Your task to perform on an android device: stop showing notifications on the lock screen Image 0: 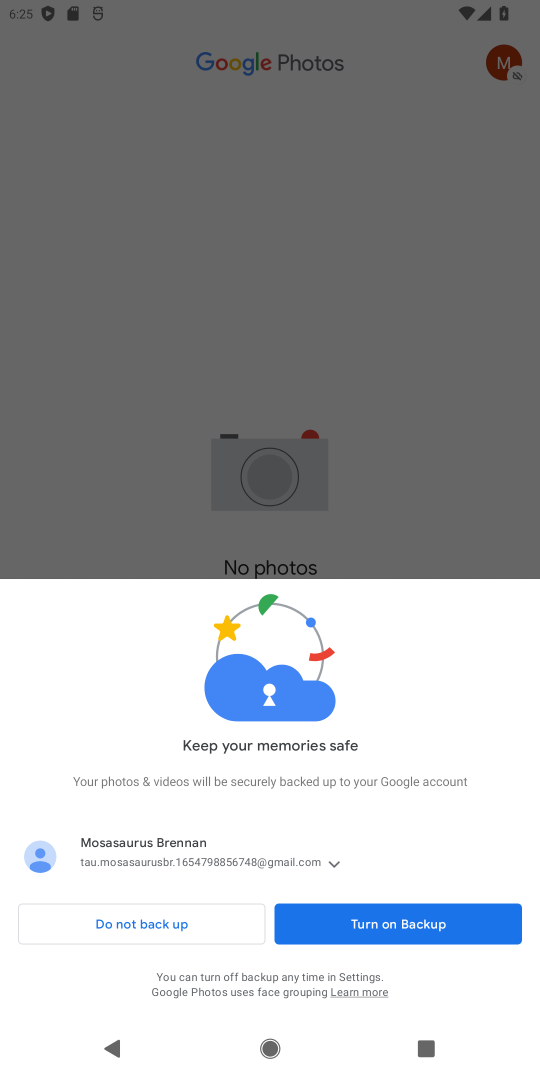
Step 0: press home button
Your task to perform on an android device: stop showing notifications on the lock screen Image 1: 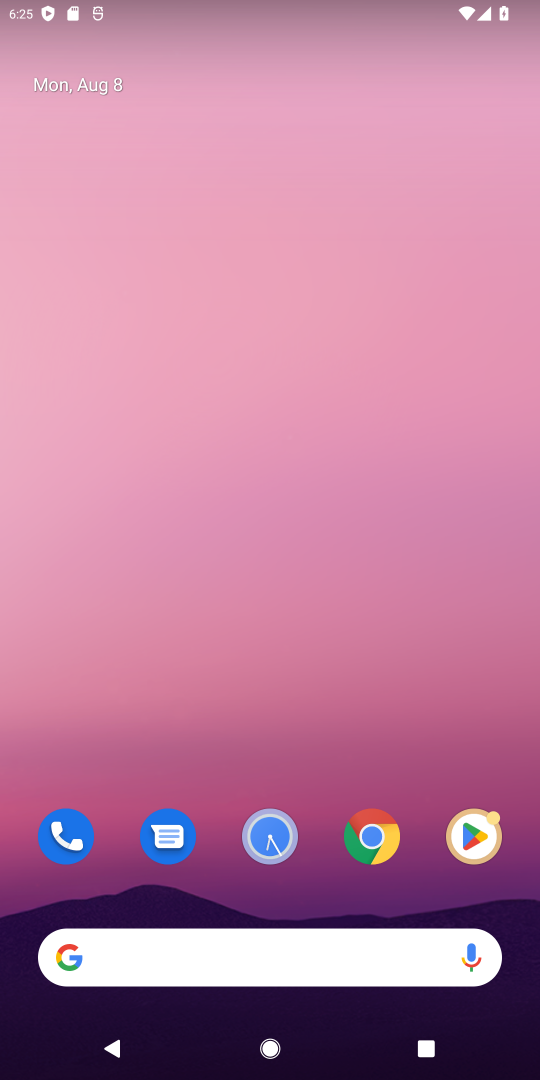
Step 1: drag from (312, 759) to (234, 40)
Your task to perform on an android device: stop showing notifications on the lock screen Image 2: 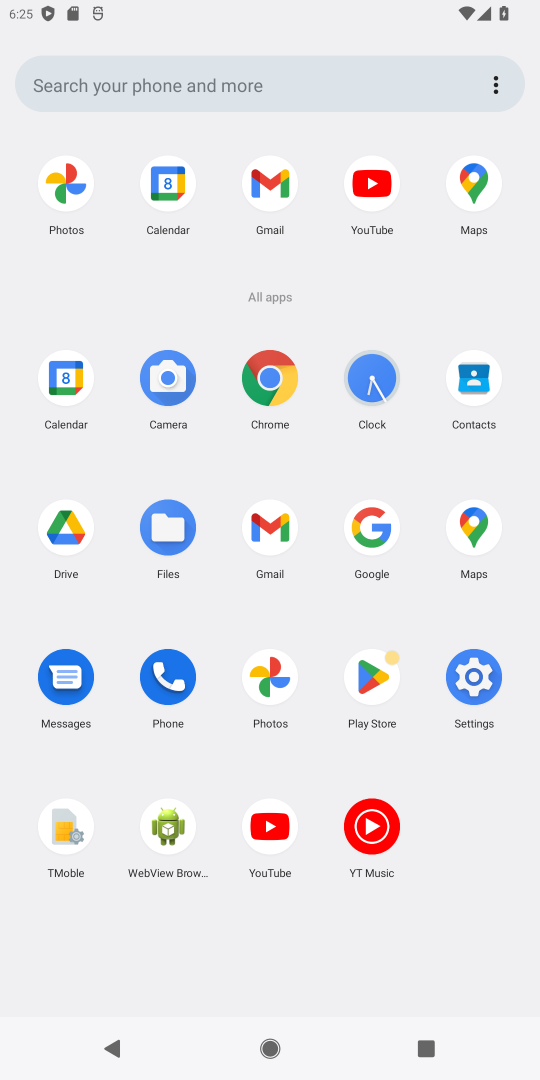
Step 2: click (482, 689)
Your task to perform on an android device: stop showing notifications on the lock screen Image 3: 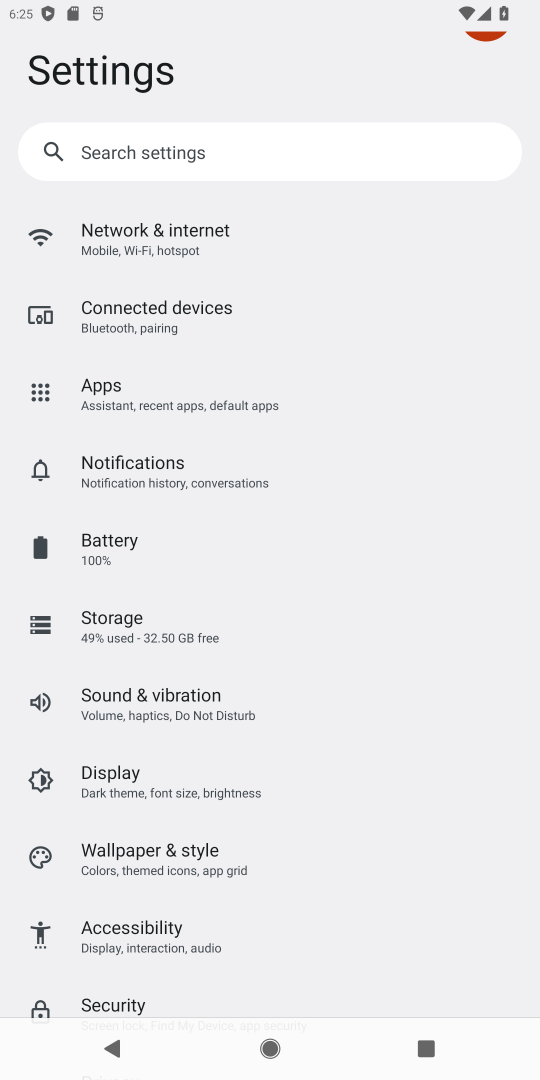
Step 3: click (238, 480)
Your task to perform on an android device: stop showing notifications on the lock screen Image 4: 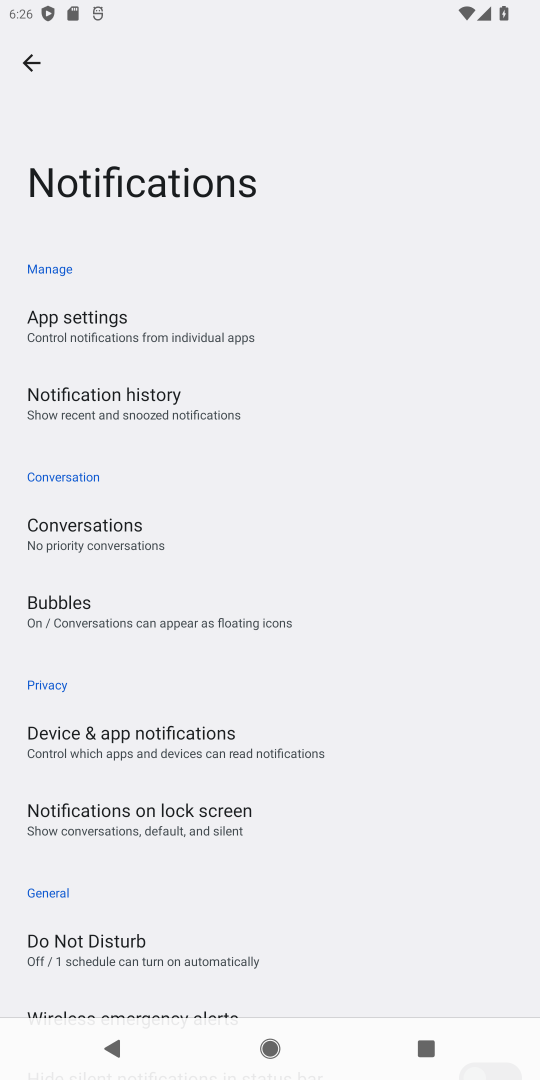
Step 4: click (282, 801)
Your task to perform on an android device: stop showing notifications on the lock screen Image 5: 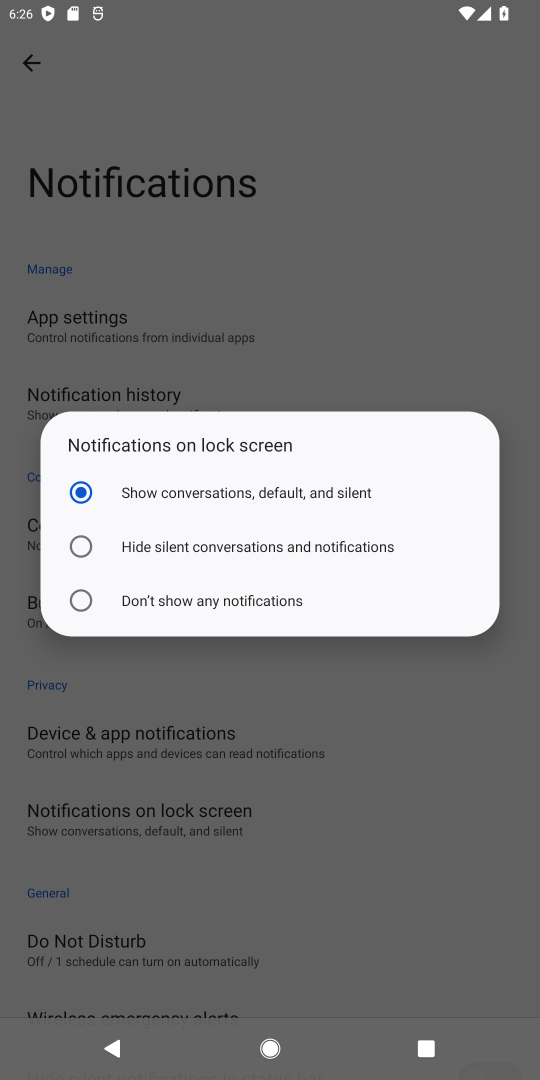
Step 5: click (273, 605)
Your task to perform on an android device: stop showing notifications on the lock screen Image 6: 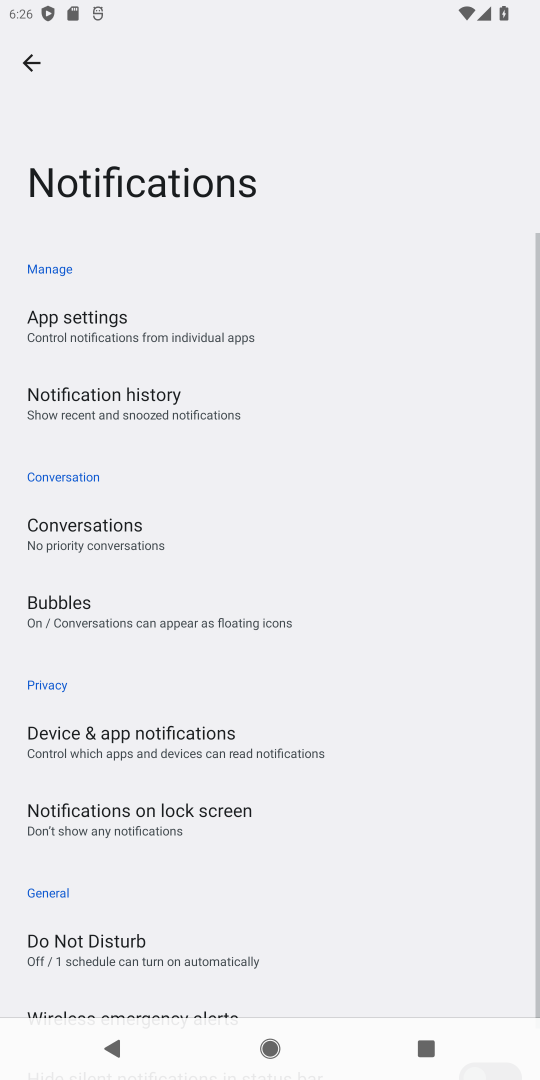
Step 6: task complete